Your task to perform on an android device: open the mobile data screen to see how much data has been used Image 0: 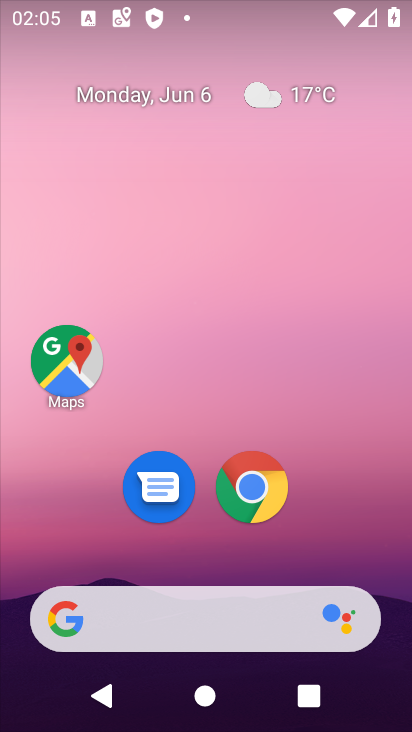
Step 0: drag from (403, 624) to (346, 72)
Your task to perform on an android device: open the mobile data screen to see how much data has been used Image 1: 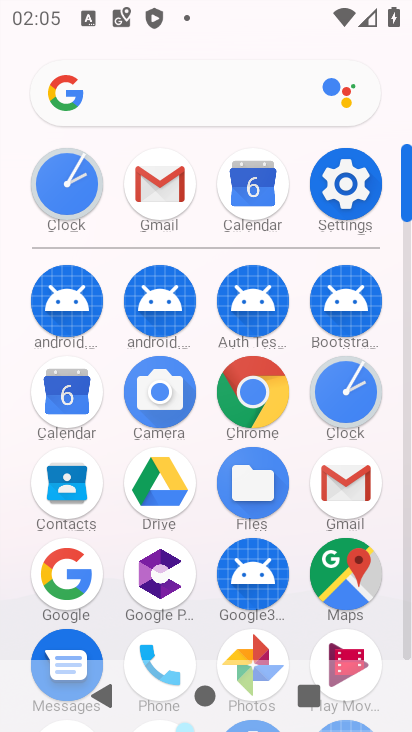
Step 1: click (405, 649)
Your task to perform on an android device: open the mobile data screen to see how much data has been used Image 2: 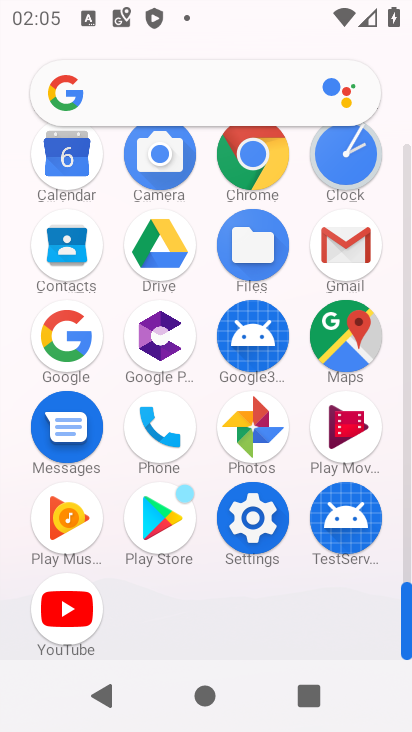
Step 2: click (254, 516)
Your task to perform on an android device: open the mobile data screen to see how much data has been used Image 3: 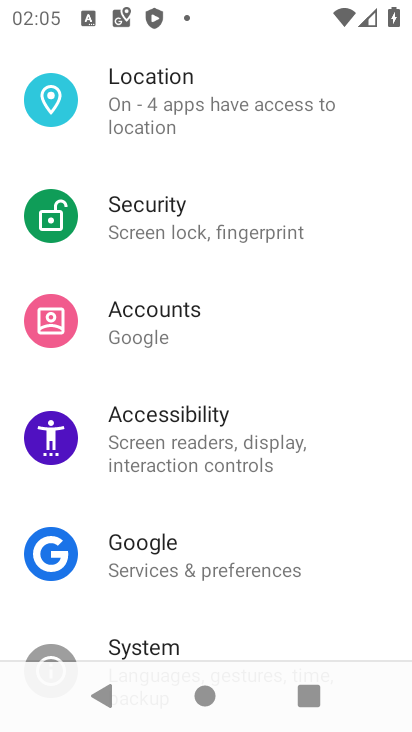
Step 3: drag from (362, 132) to (362, 425)
Your task to perform on an android device: open the mobile data screen to see how much data has been used Image 4: 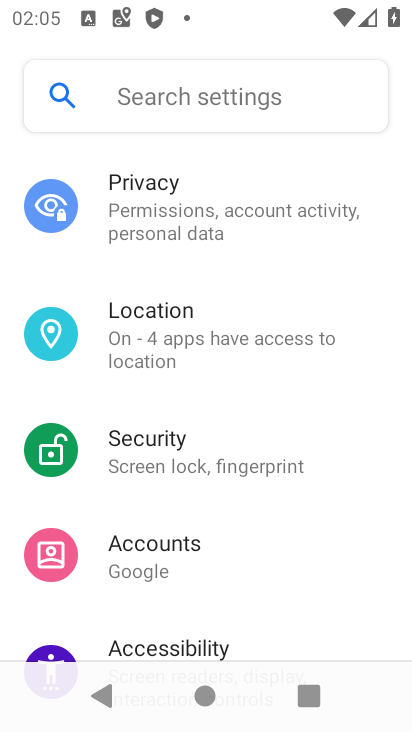
Step 4: drag from (379, 174) to (362, 429)
Your task to perform on an android device: open the mobile data screen to see how much data has been used Image 5: 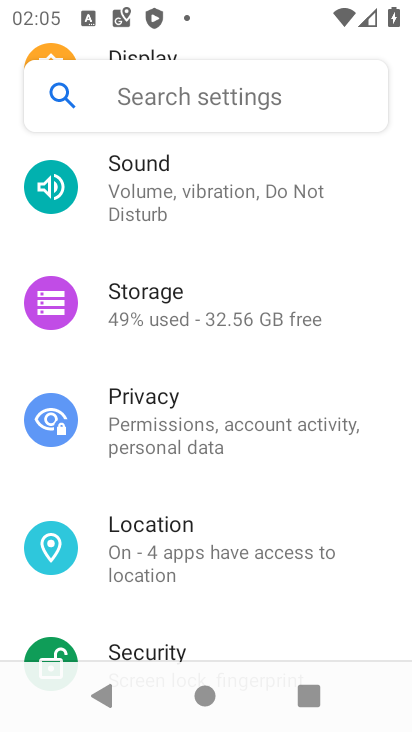
Step 5: drag from (359, 199) to (357, 483)
Your task to perform on an android device: open the mobile data screen to see how much data has been used Image 6: 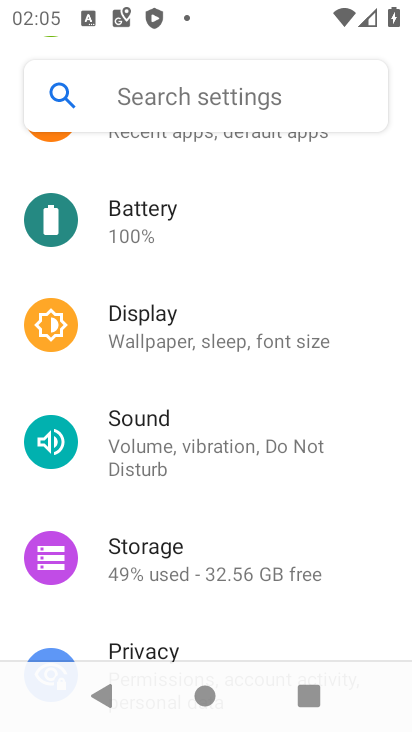
Step 6: drag from (360, 209) to (357, 533)
Your task to perform on an android device: open the mobile data screen to see how much data has been used Image 7: 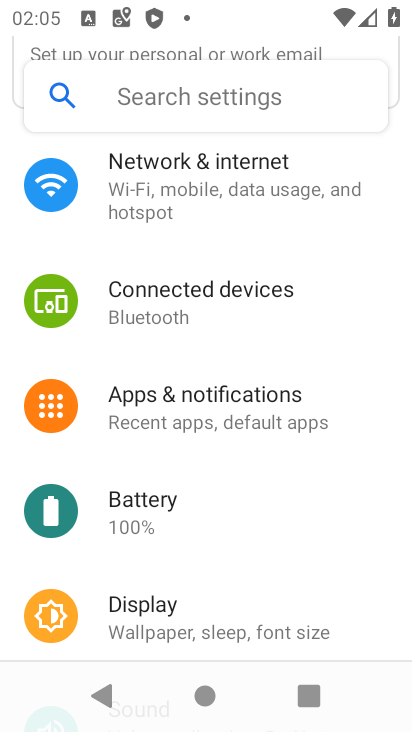
Step 7: click (163, 188)
Your task to perform on an android device: open the mobile data screen to see how much data has been used Image 8: 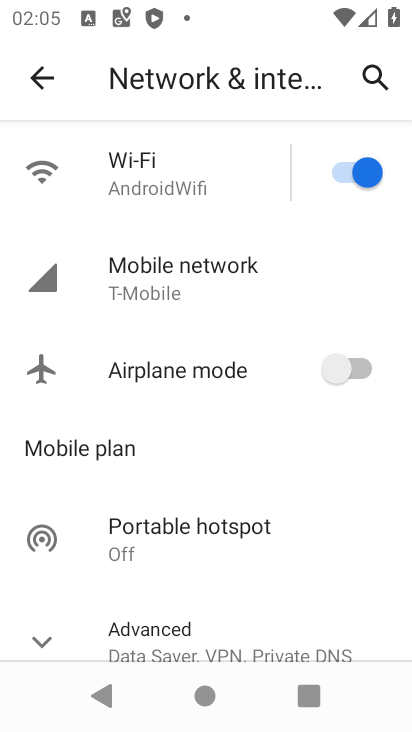
Step 8: click (186, 269)
Your task to perform on an android device: open the mobile data screen to see how much data has been used Image 9: 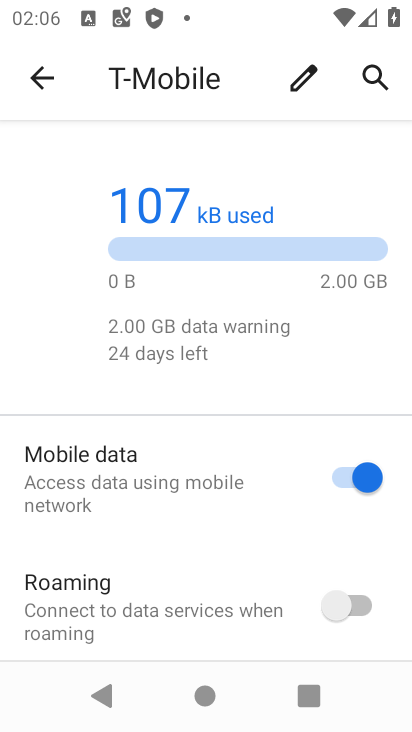
Step 9: drag from (263, 605) to (264, 494)
Your task to perform on an android device: open the mobile data screen to see how much data has been used Image 10: 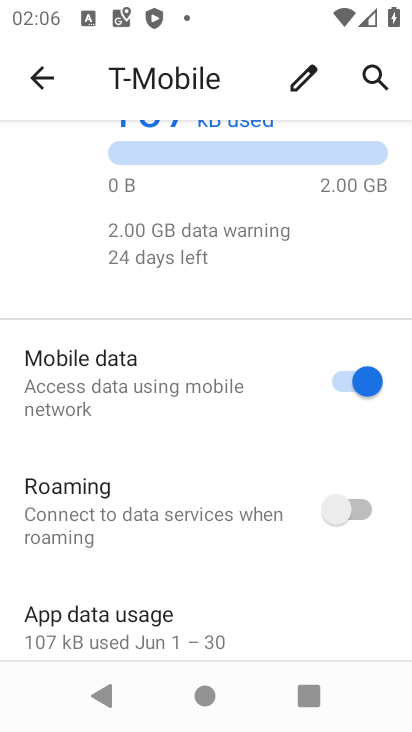
Step 10: drag from (271, 663) to (267, 208)
Your task to perform on an android device: open the mobile data screen to see how much data has been used Image 11: 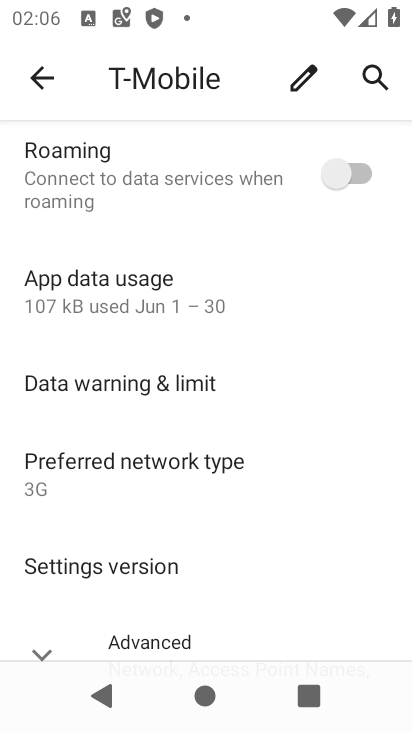
Step 11: drag from (222, 295) to (223, 249)
Your task to perform on an android device: open the mobile data screen to see how much data has been used Image 12: 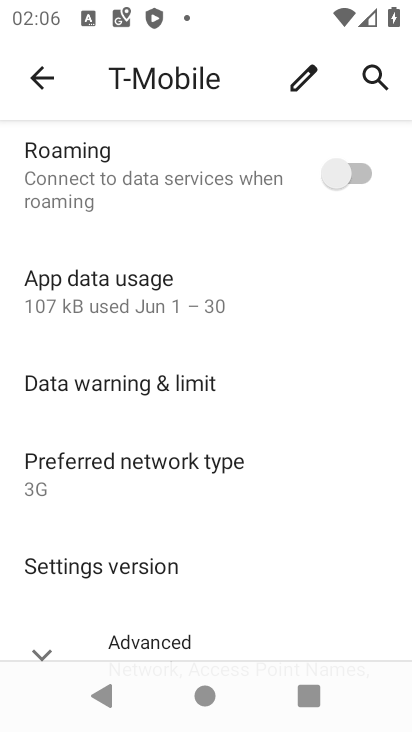
Step 12: drag from (252, 618) to (252, 182)
Your task to perform on an android device: open the mobile data screen to see how much data has been used Image 13: 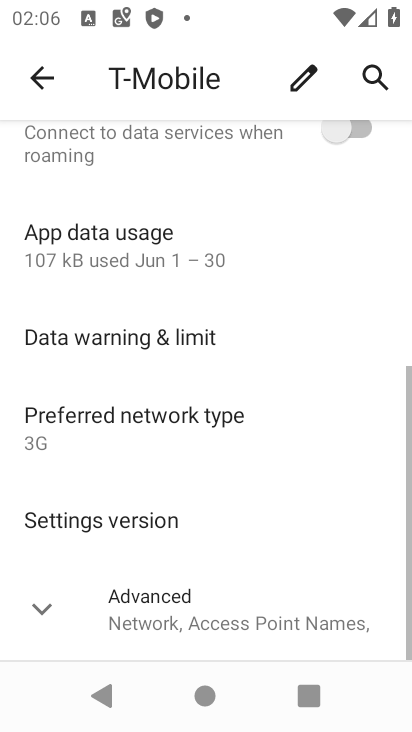
Step 13: click (43, 602)
Your task to perform on an android device: open the mobile data screen to see how much data has been used Image 14: 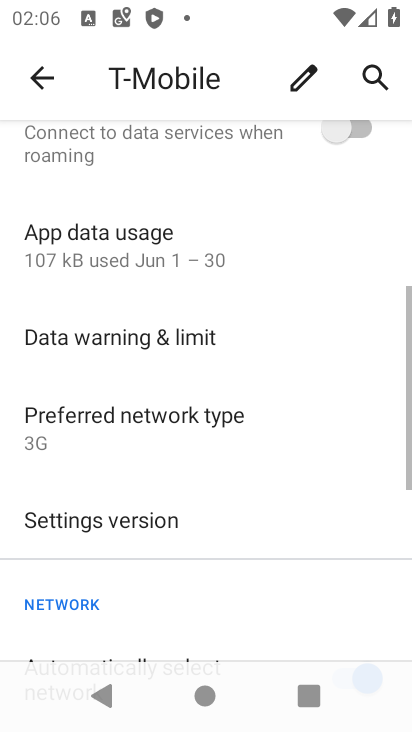
Step 14: task complete